Your task to perform on an android device: turn on wifi Image 0: 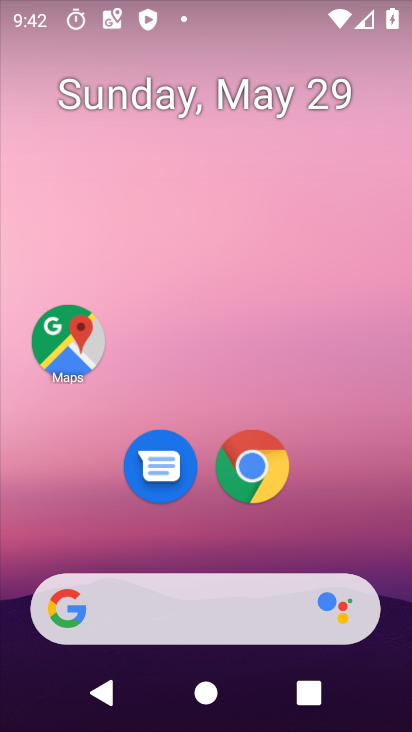
Step 0: drag from (198, 529) to (198, 245)
Your task to perform on an android device: turn on wifi Image 1: 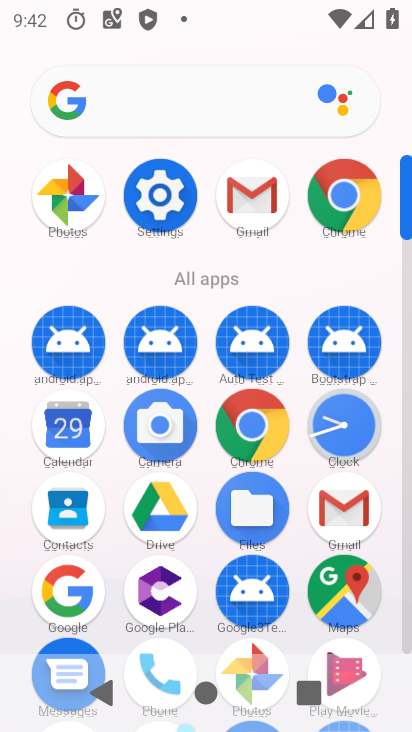
Step 1: click (172, 205)
Your task to perform on an android device: turn on wifi Image 2: 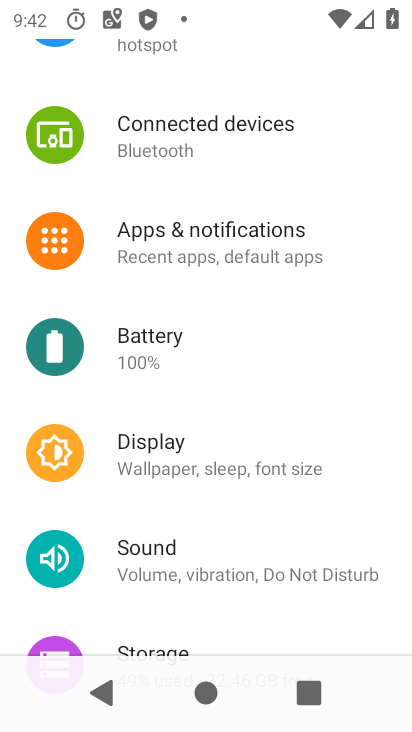
Step 2: drag from (186, 232) to (196, 543)
Your task to perform on an android device: turn on wifi Image 3: 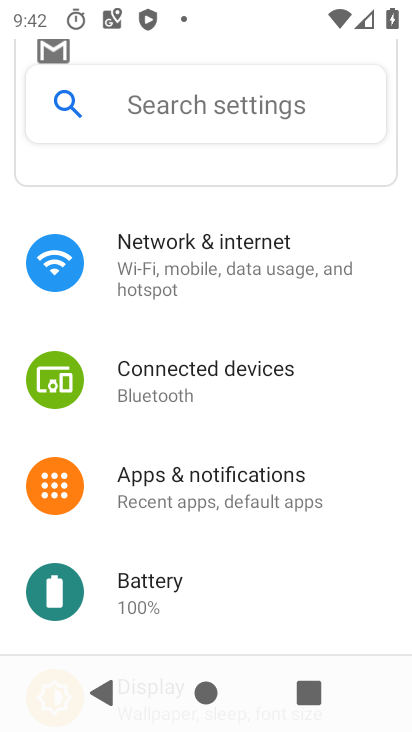
Step 3: click (175, 280)
Your task to perform on an android device: turn on wifi Image 4: 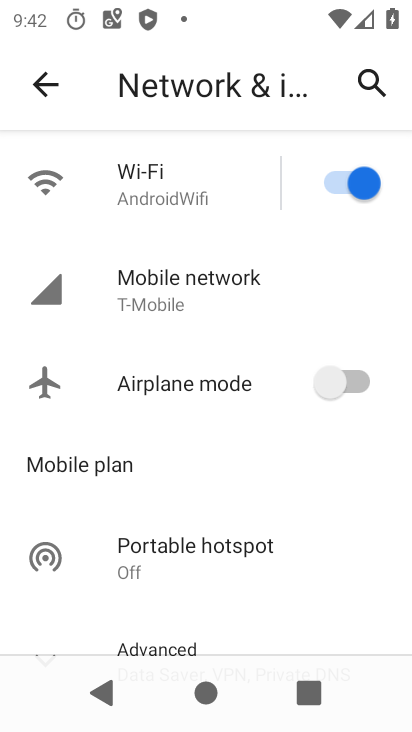
Step 4: task complete